Your task to perform on an android device: Show me the alarms in the clock app Image 0: 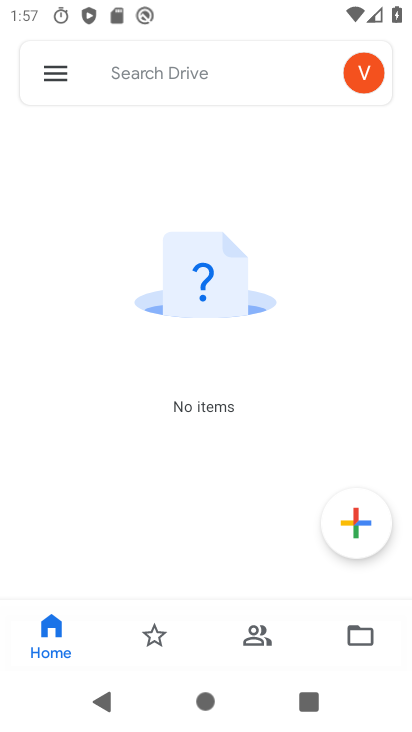
Step 0: press home button
Your task to perform on an android device: Show me the alarms in the clock app Image 1: 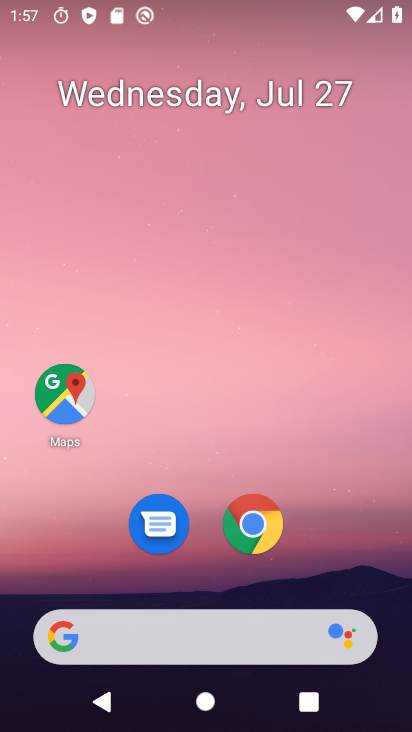
Step 1: drag from (291, 551) to (322, 25)
Your task to perform on an android device: Show me the alarms in the clock app Image 2: 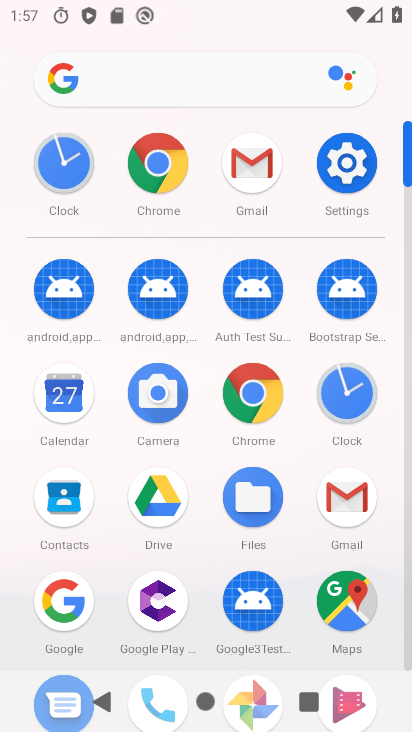
Step 2: click (345, 393)
Your task to perform on an android device: Show me the alarms in the clock app Image 3: 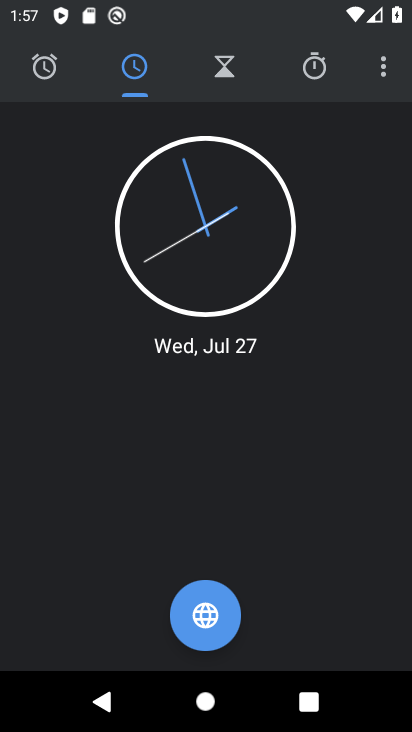
Step 3: click (50, 70)
Your task to perform on an android device: Show me the alarms in the clock app Image 4: 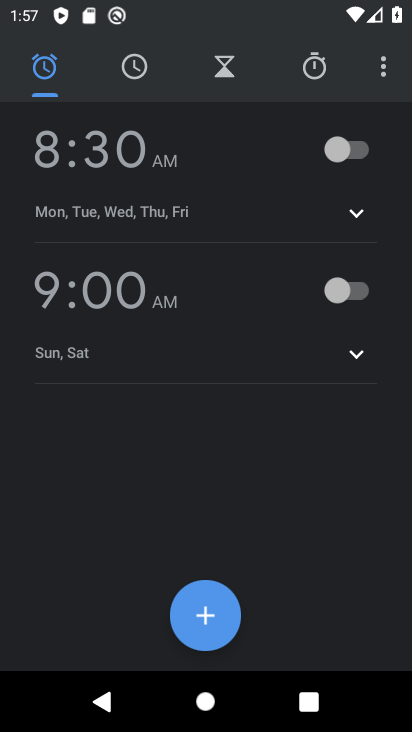
Step 4: task complete